Your task to perform on an android device: Open privacy settings Image 0: 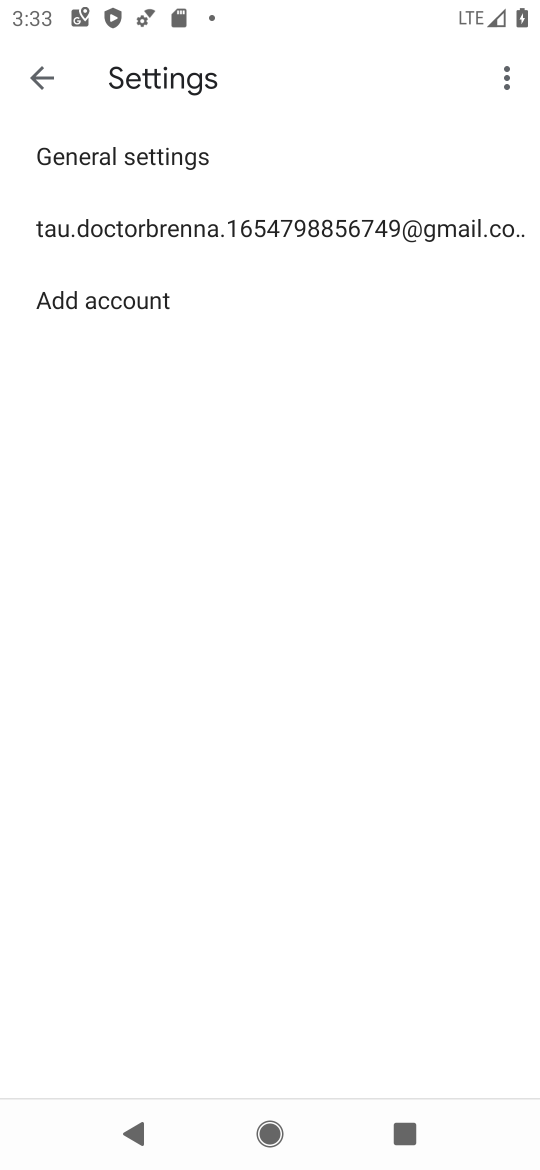
Step 0: press home button
Your task to perform on an android device: Open privacy settings Image 1: 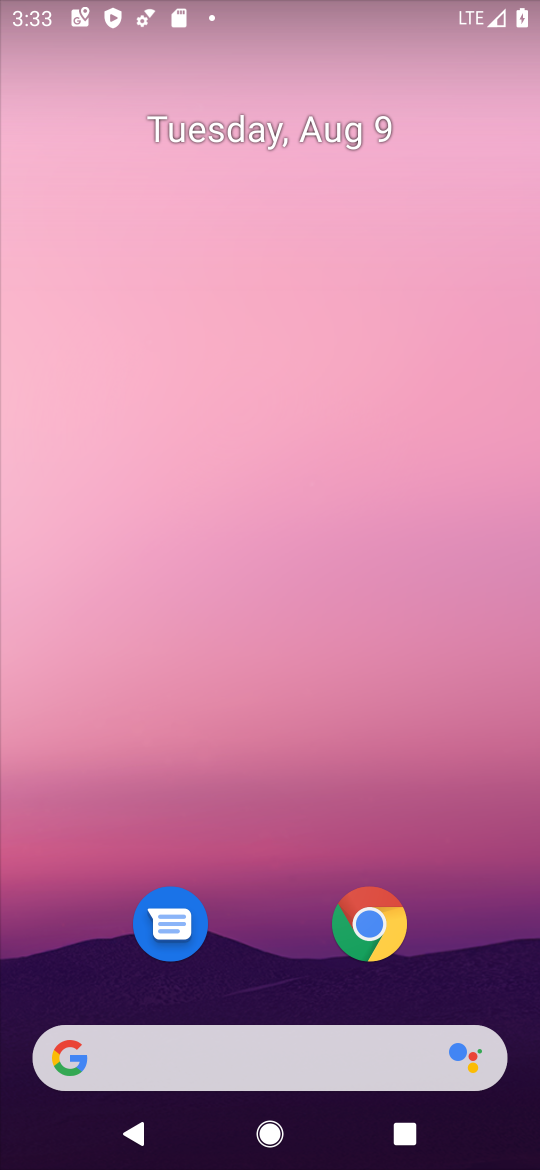
Step 1: drag from (186, 1045) to (371, 97)
Your task to perform on an android device: Open privacy settings Image 2: 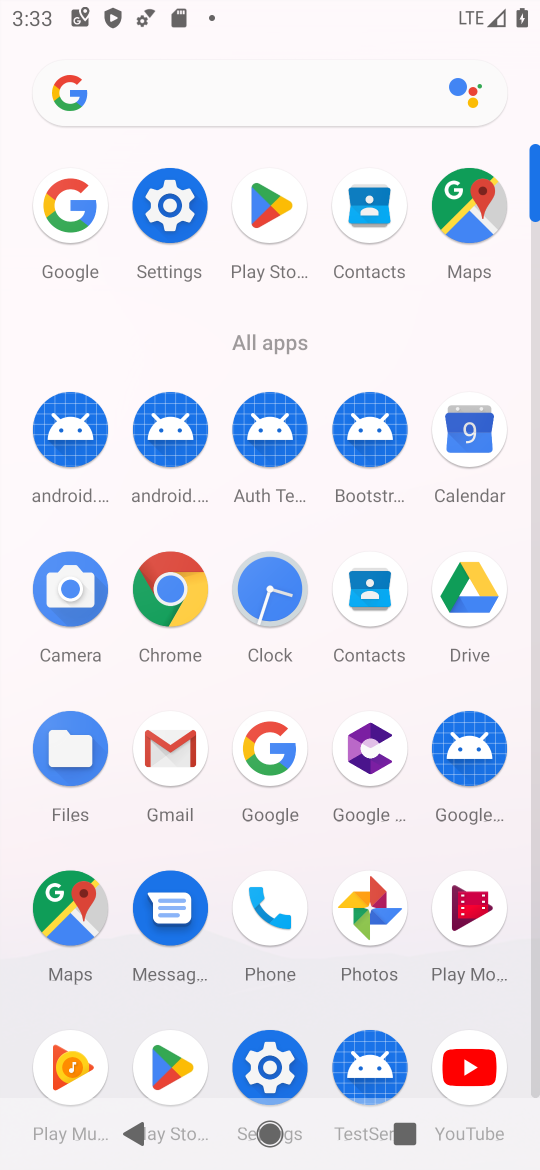
Step 2: click (271, 1066)
Your task to perform on an android device: Open privacy settings Image 3: 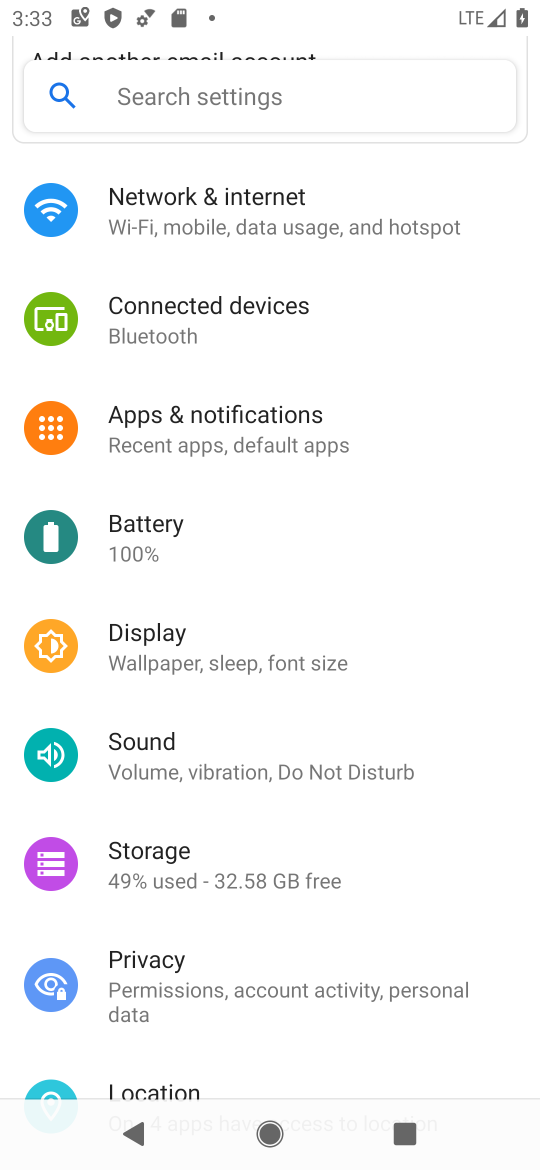
Step 3: click (179, 978)
Your task to perform on an android device: Open privacy settings Image 4: 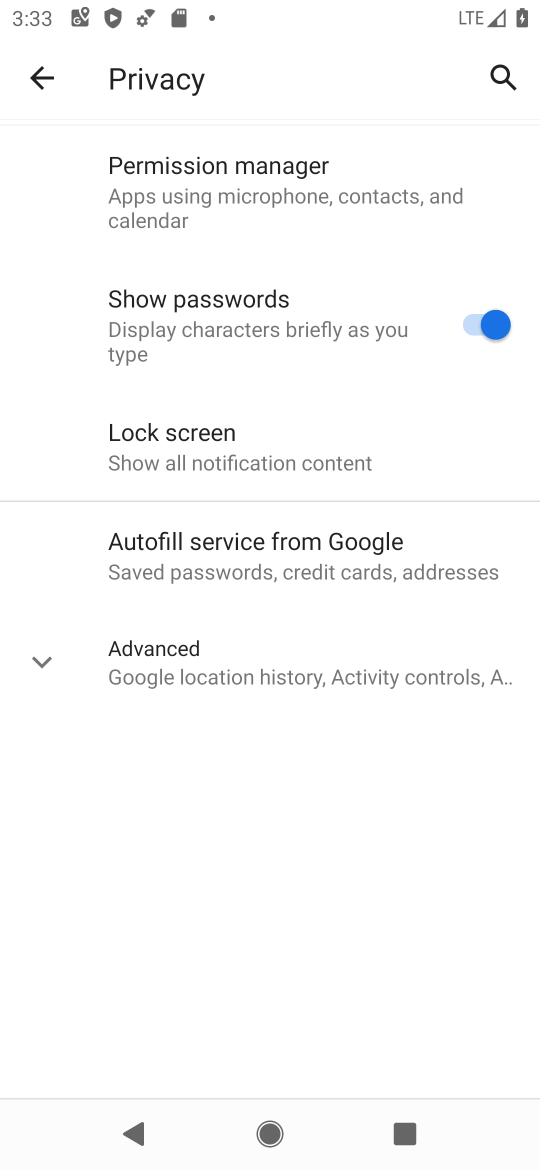
Step 4: task complete